Your task to perform on an android device: turn notification dots on Image 0: 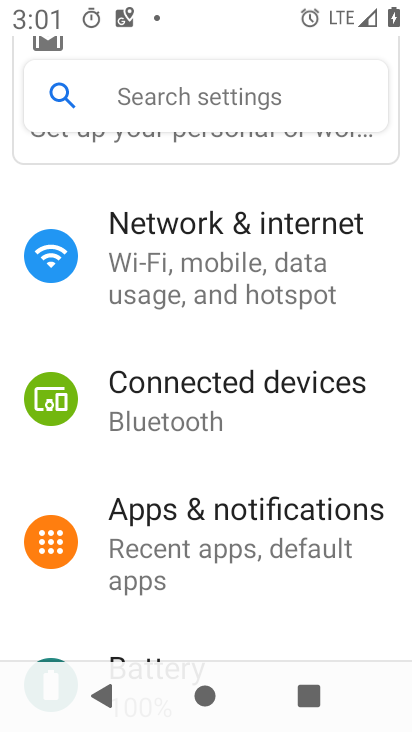
Step 0: press home button
Your task to perform on an android device: turn notification dots on Image 1: 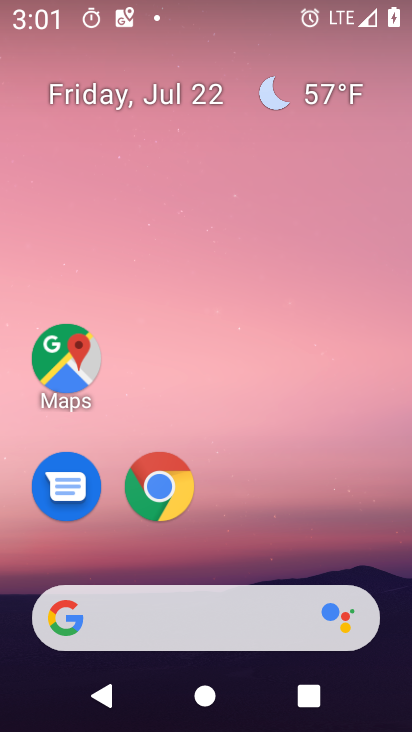
Step 1: drag from (328, 515) to (334, 119)
Your task to perform on an android device: turn notification dots on Image 2: 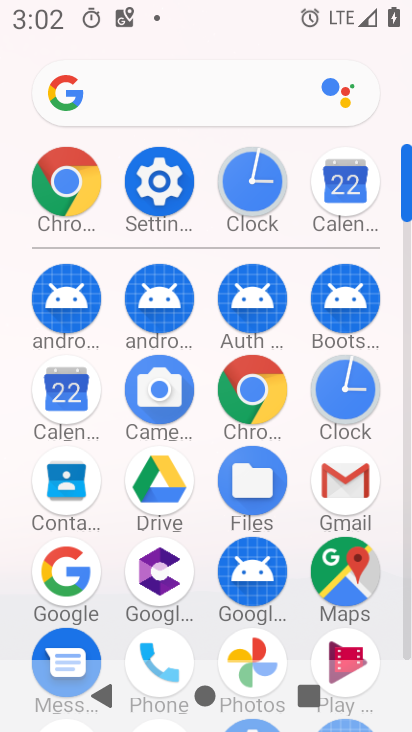
Step 2: click (172, 183)
Your task to perform on an android device: turn notification dots on Image 3: 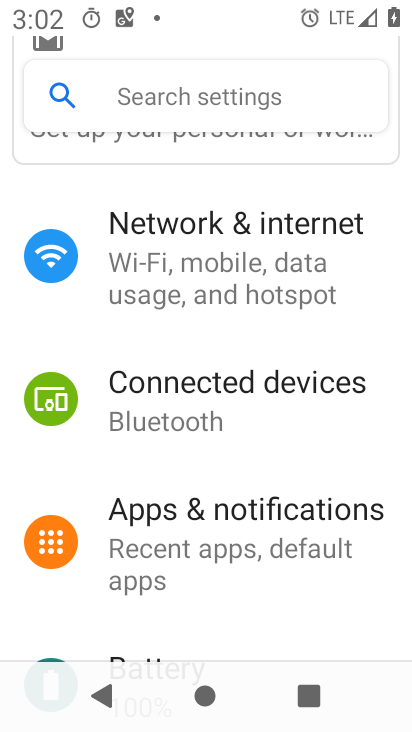
Step 3: drag from (376, 434) to (381, 361)
Your task to perform on an android device: turn notification dots on Image 4: 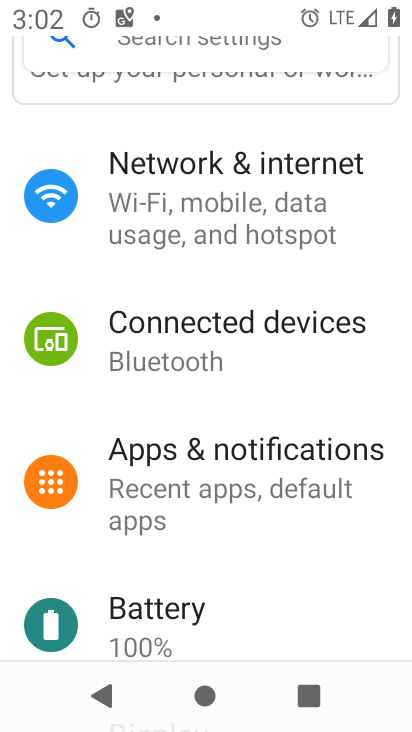
Step 4: drag from (384, 493) to (385, 385)
Your task to perform on an android device: turn notification dots on Image 5: 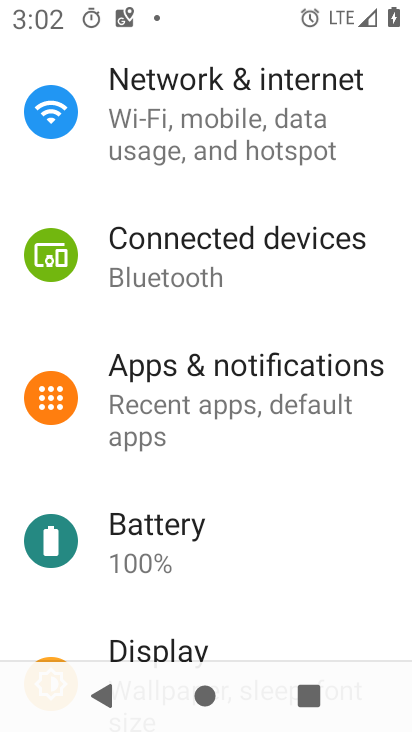
Step 5: drag from (356, 526) to (355, 420)
Your task to perform on an android device: turn notification dots on Image 6: 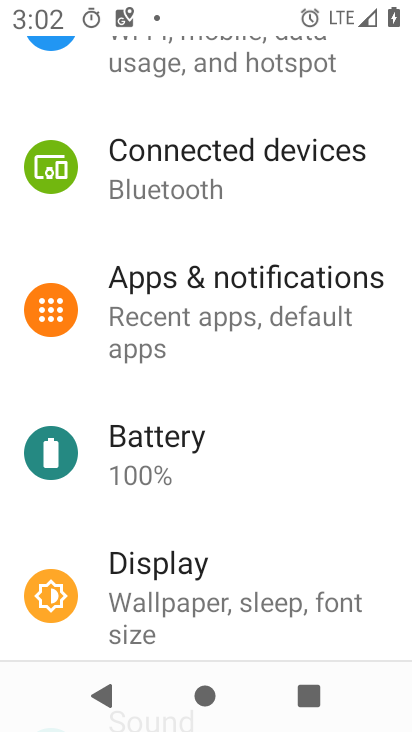
Step 6: click (341, 323)
Your task to perform on an android device: turn notification dots on Image 7: 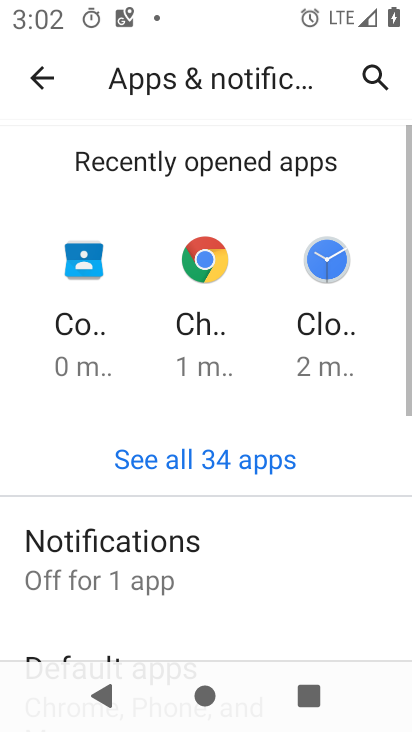
Step 7: drag from (321, 439) to (329, 359)
Your task to perform on an android device: turn notification dots on Image 8: 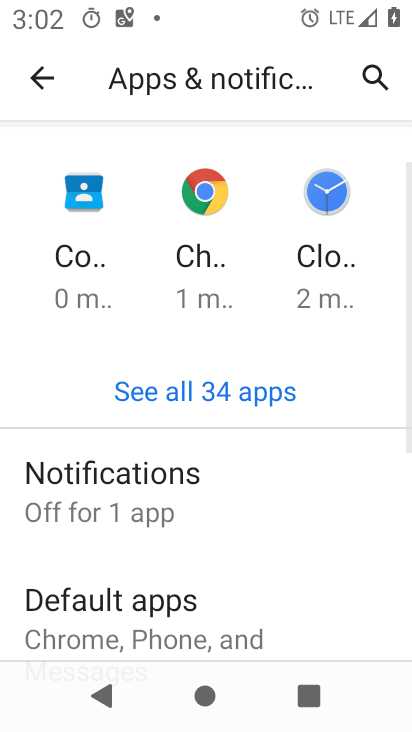
Step 8: drag from (330, 464) to (337, 370)
Your task to perform on an android device: turn notification dots on Image 9: 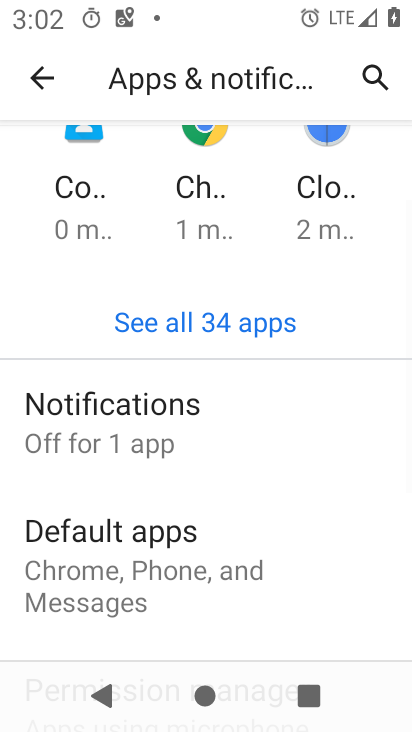
Step 9: drag from (325, 487) to (326, 365)
Your task to perform on an android device: turn notification dots on Image 10: 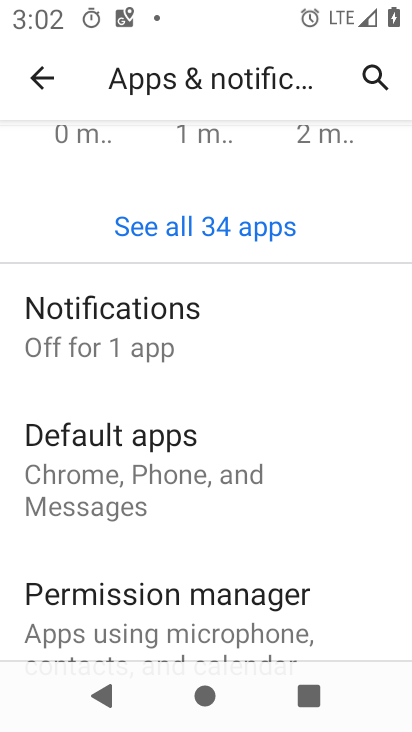
Step 10: click (312, 344)
Your task to perform on an android device: turn notification dots on Image 11: 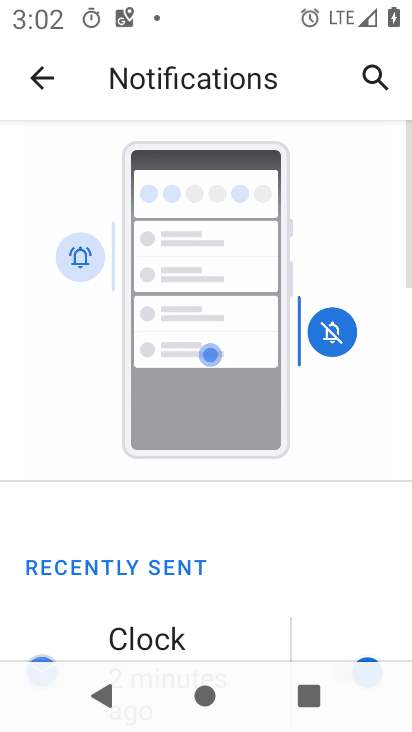
Step 11: drag from (311, 507) to (318, 416)
Your task to perform on an android device: turn notification dots on Image 12: 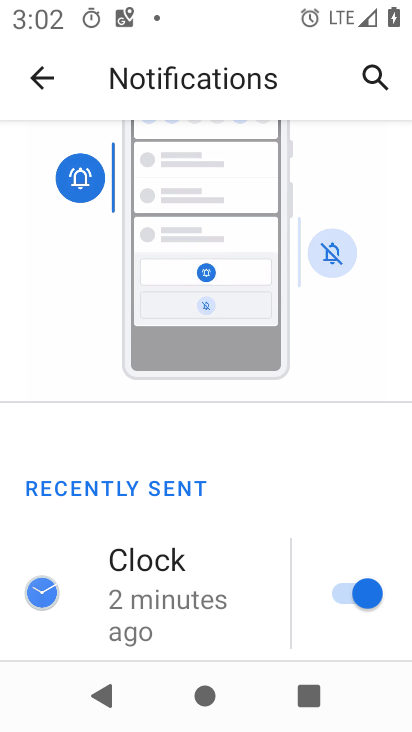
Step 12: drag from (254, 547) to (256, 425)
Your task to perform on an android device: turn notification dots on Image 13: 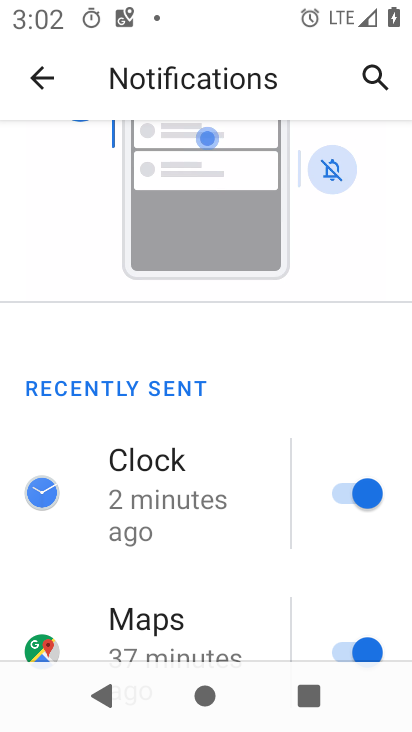
Step 13: drag from (240, 580) to (241, 461)
Your task to perform on an android device: turn notification dots on Image 14: 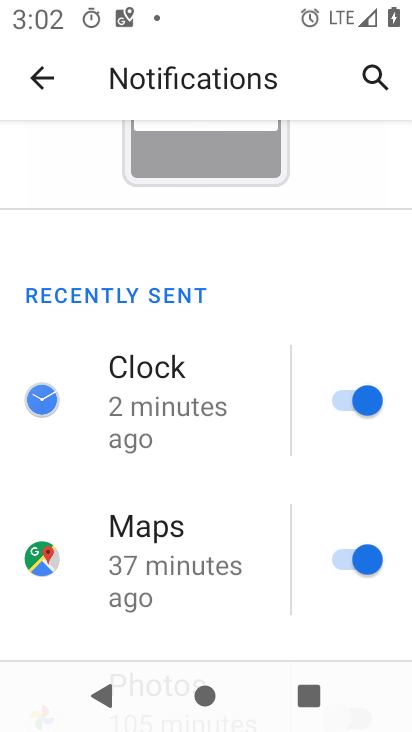
Step 14: drag from (240, 602) to (241, 482)
Your task to perform on an android device: turn notification dots on Image 15: 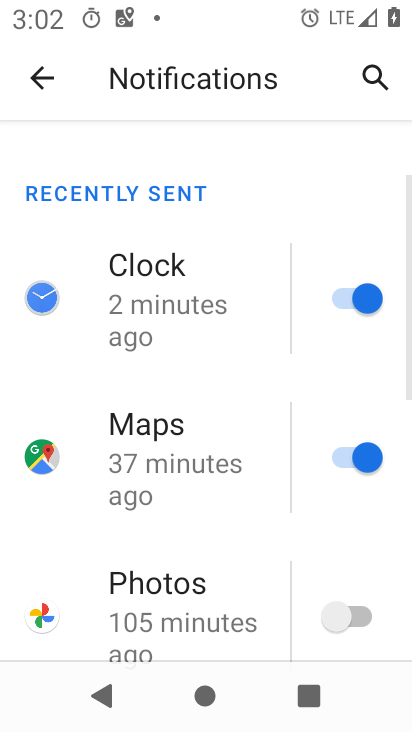
Step 15: drag from (240, 592) to (243, 472)
Your task to perform on an android device: turn notification dots on Image 16: 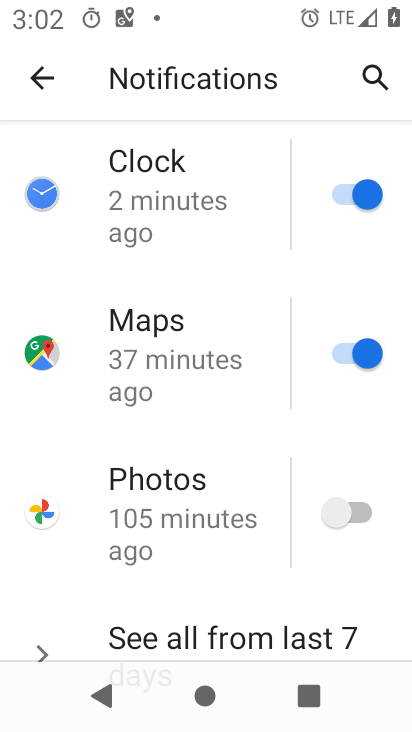
Step 16: drag from (248, 597) to (251, 490)
Your task to perform on an android device: turn notification dots on Image 17: 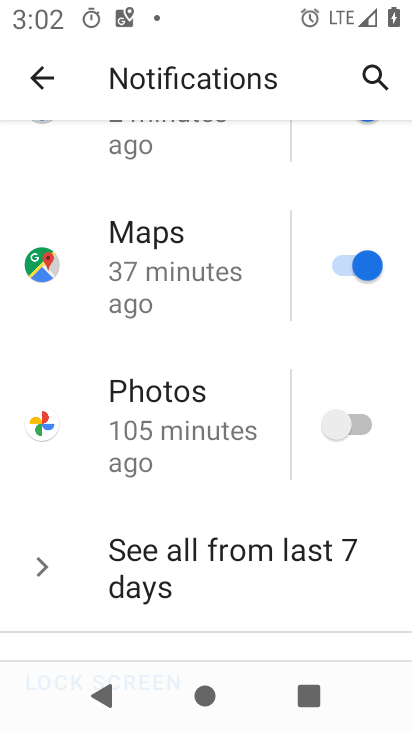
Step 17: drag from (255, 593) to (258, 490)
Your task to perform on an android device: turn notification dots on Image 18: 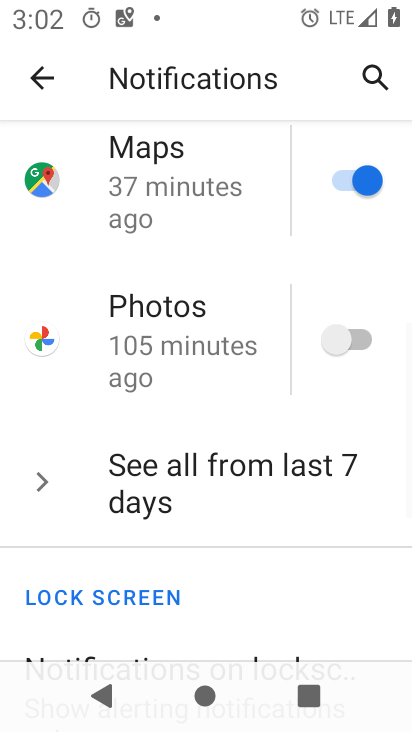
Step 18: drag from (263, 614) to (264, 486)
Your task to perform on an android device: turn notification dots on Image 19: 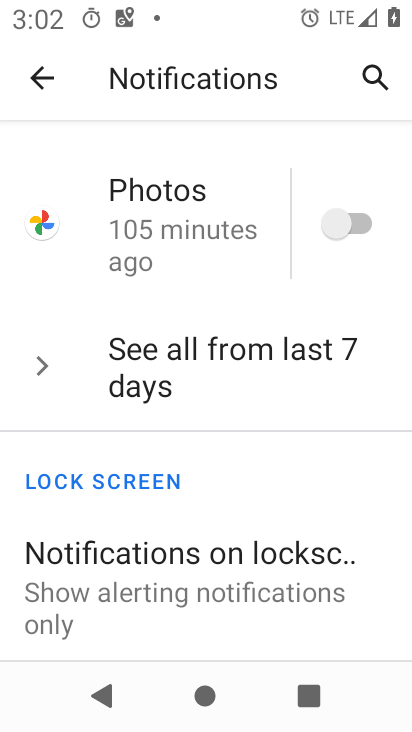
Step 19: drag from (259, 610) to (263, 471)
Your task to perform on an android device: turn notification dots on Image 20: 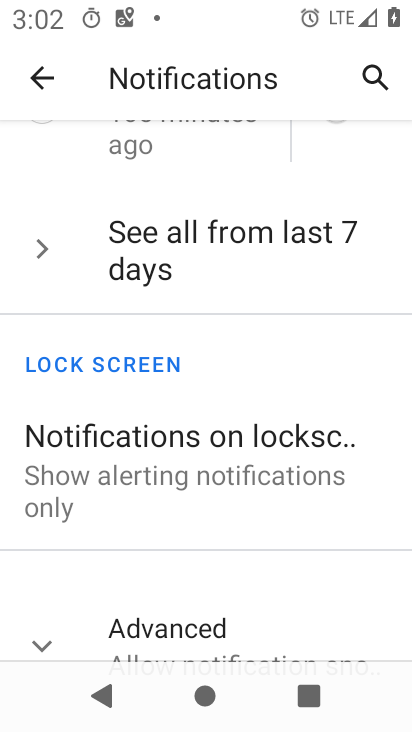
Step 20: drag from (283, 604) to (285, 514)
Your task to perform on an android device: turn notification dots on Image 21: 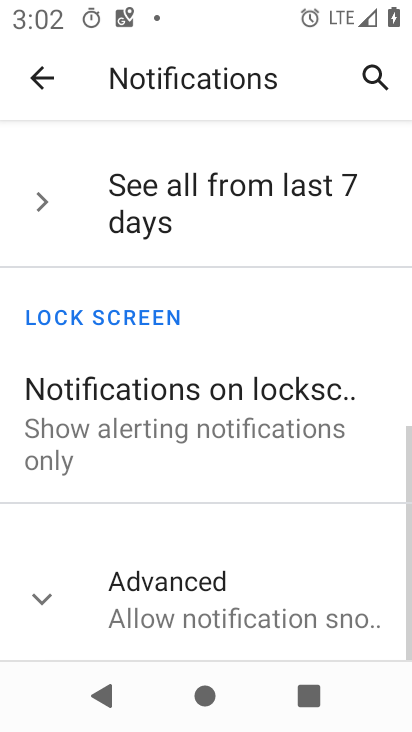
Step 21: click (286, 583)
Your task to perform on an android device: turn notification dots on Image 22: 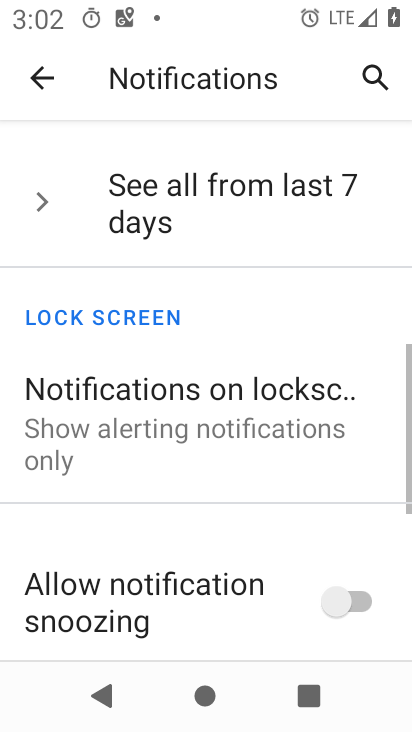
Step 22: task complete